Your task to perform on an android device: remove spam from my inbox in the gmail app Image 0: 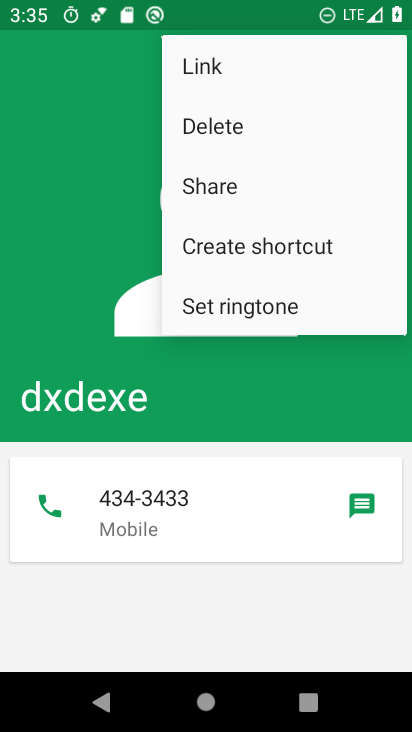
Step 0: click (219, 440)
Your task to perform on an android device: remove spam from my inbox in the gmail app Image 1: 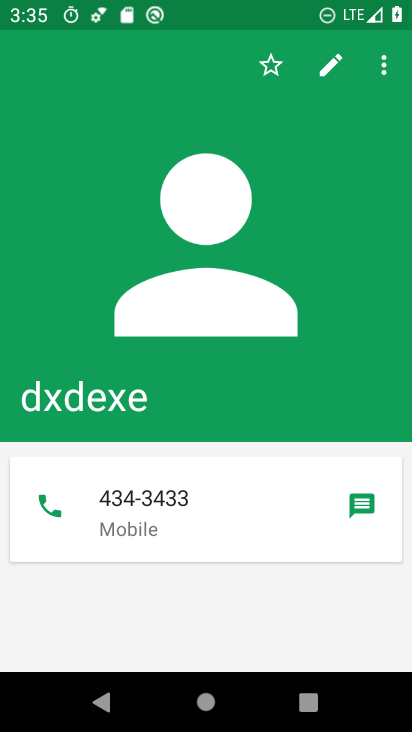
Step 1: press home button
Your task to perform on an android device: remove spam from my inbox in the gmail app Image 2: 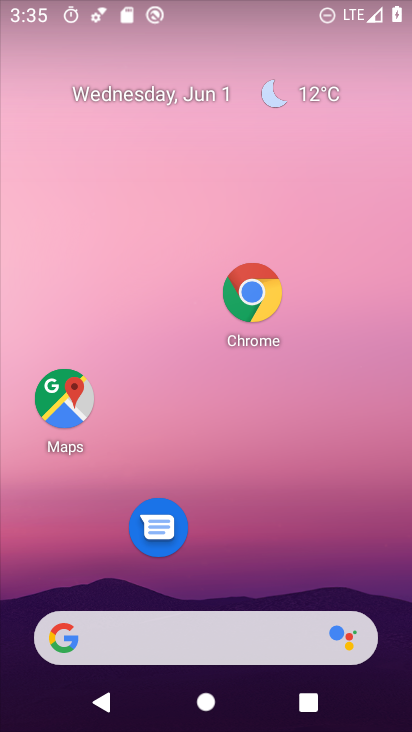
Step 2: drag from (218, 458) to (206, 364)
Your task to perform on an android device: remove spam from my inbox in the gmail app Image 3: 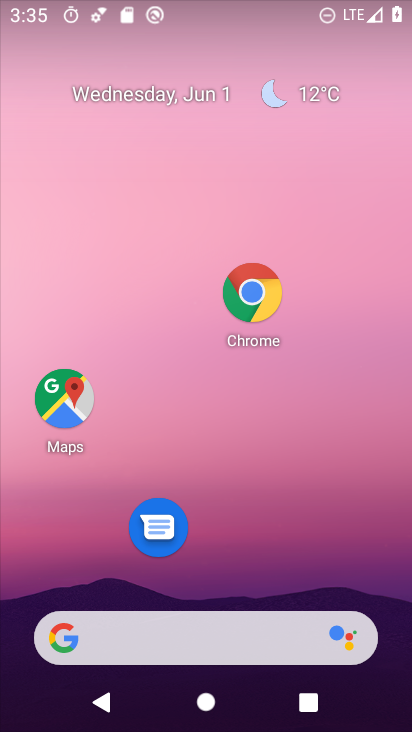
Step 3: drag from (234, 513) to (217, 206)
Your task to perform on an android device: remove spam from my inbox in the gmail app Image 4: 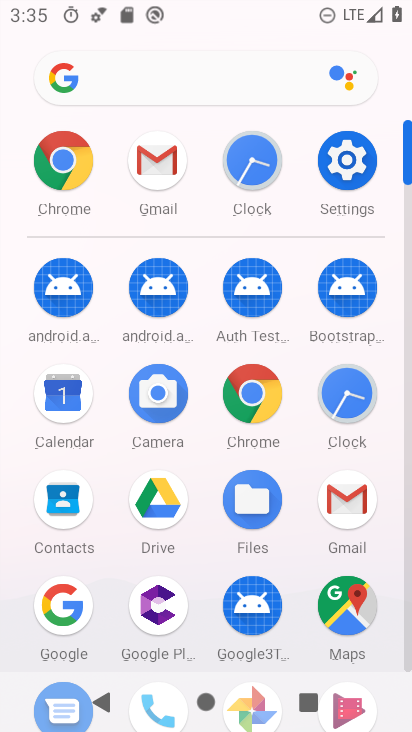
Step 4: click (352, 525)
Your task to perform on an android device: remove spam from my inbox in the gmail app Image 5: 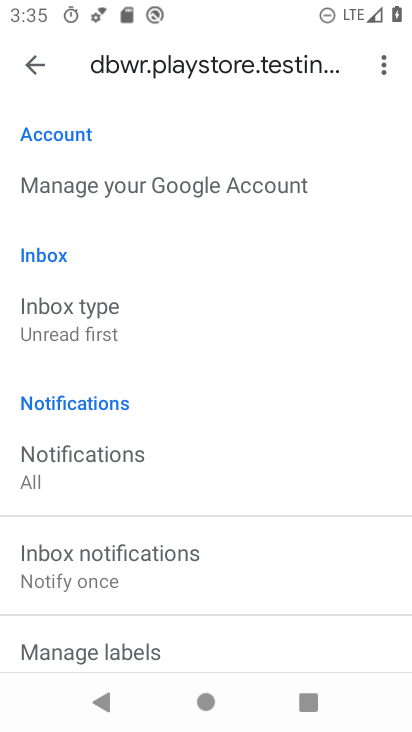
Step 5: click (21, 80)
Your task to perform on an android device: remove spam from my inbox in the gmail app Image 6: 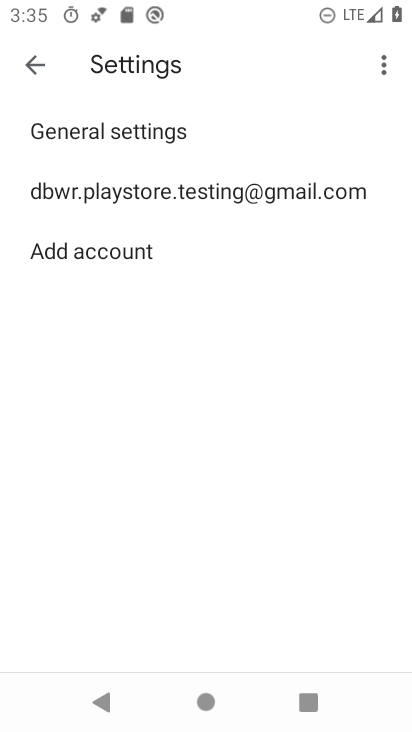
Step 6: click (33, 64)
Your task to perform on an android device: remove spam from my inbox in the gmail app Image 7: 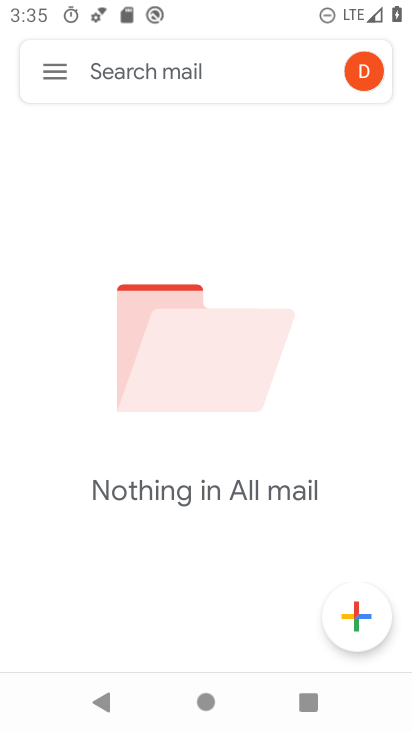
Step 7: click (64, 72)
Your task to perform on an android device: remove spam from my inbox in the gmail app Image 8: 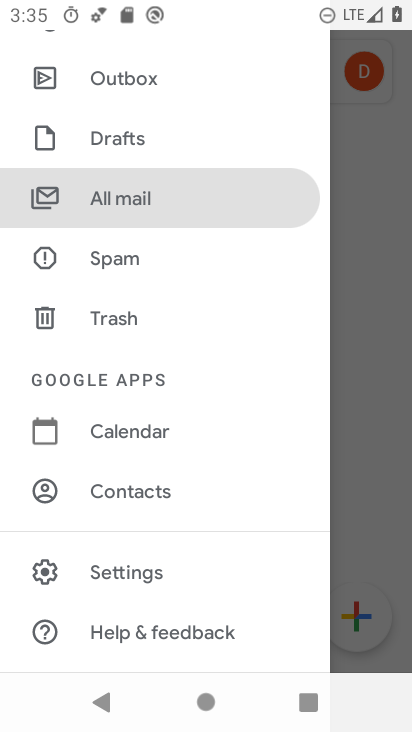
Step 8: drag from (154, 438) to (154, 395)
Your task to perform on an android device: remove spam from my inbox in the gmail app Image 9: 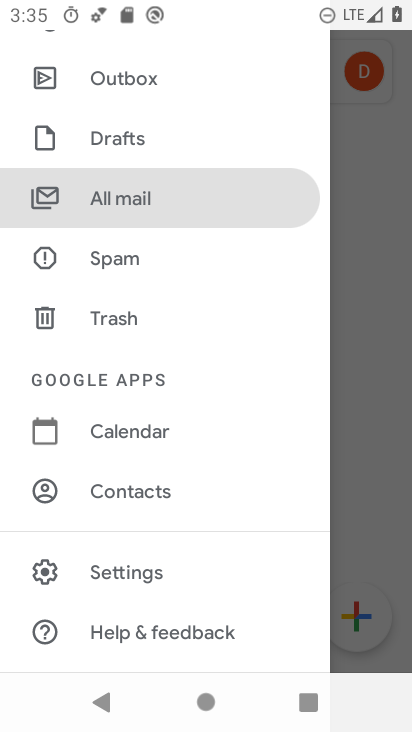
Step 9: drag from (132, 392) to (126, 583)
Your task to perform on an android device: remove spam from my inbox in the gmail app Image 10: 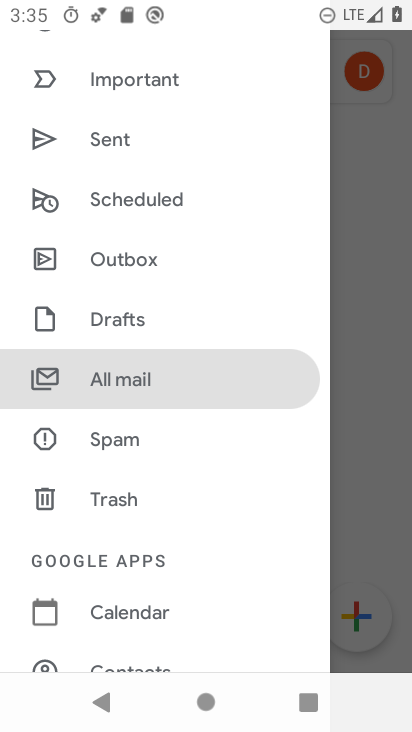
Step 10: drag from (104, 328) to (89, 567)
Your task to perform on an android device: remove spam from my inbox in the gmail app Image 11: 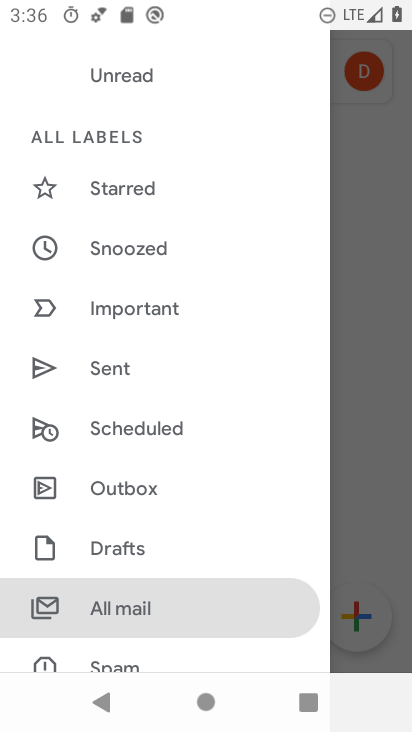
Step 11: click (127, 658)
Your task to perform on an android device: remove spam from my inbox in the gmail app Image 12: 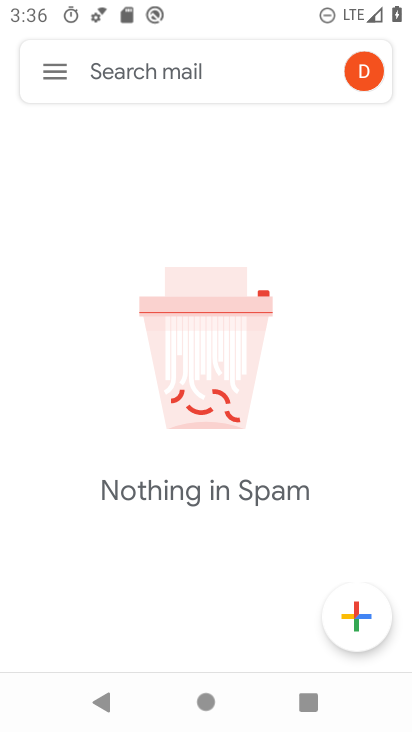
Step 12: task complete